Your task to perform on an android device: Go to calendar. Show me events next week Image 0: 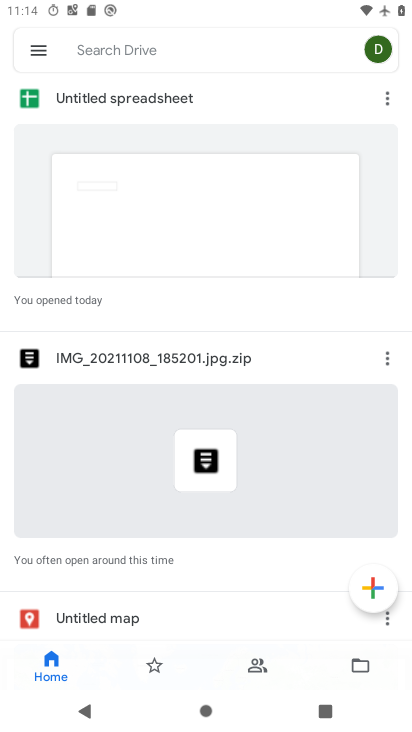
Step 0: press home button
Your task to perform on an android device: Go to calendar. Show me events next week Image 1: 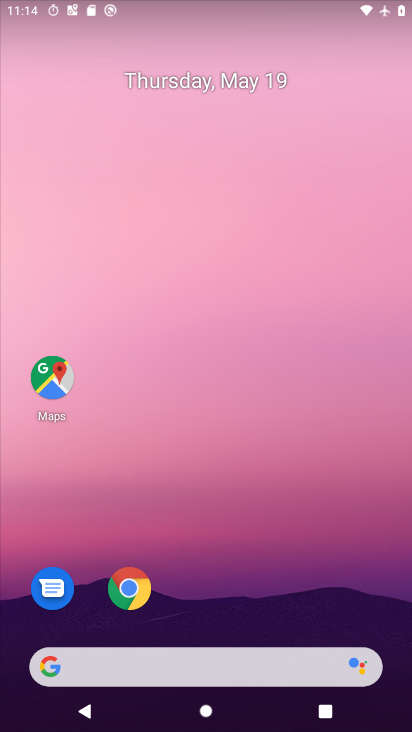
Step 1: drag from (174, 674) to (308, 118)
Your task to perform on an android device: Go to calendar. Show me events next week Image 2: 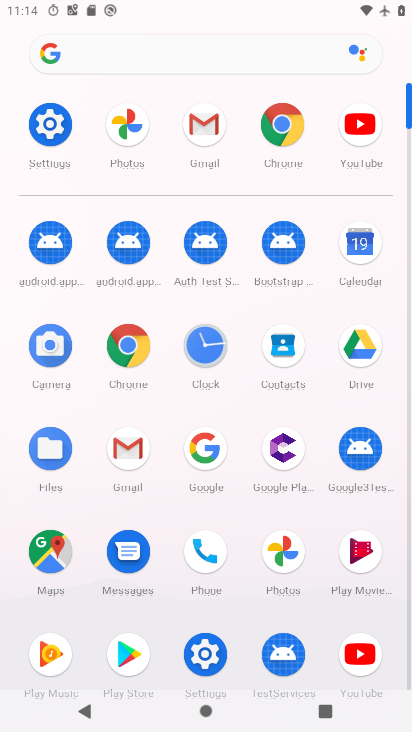
Step 2: click (357, 254)
Your task to perform on an android device: Go to calendar. Show me events next week Image 3: 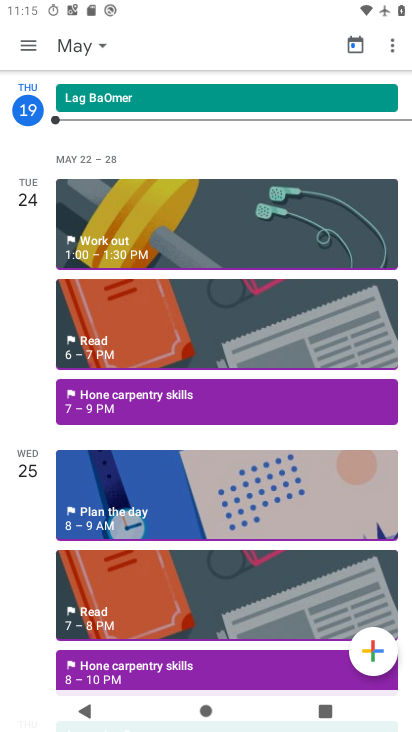
Step 3: click (71, 41)
Your task to perform on an android device: Go to calendar. Show me events next week Image 4: 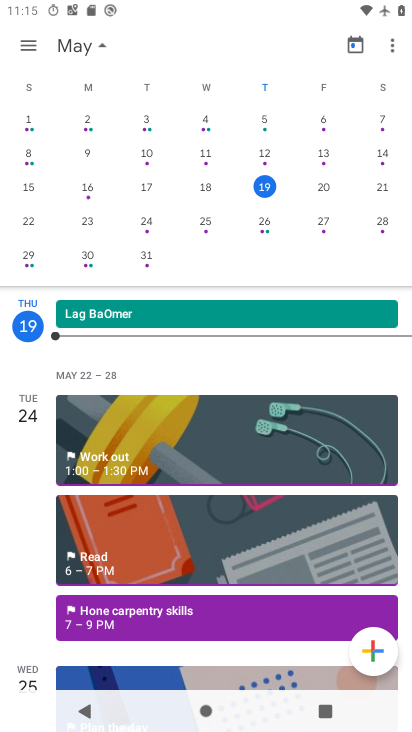
Step 4: click (33, 217)
Your task to perform on an android device: Go to calendar. Show me events next week Image 5: 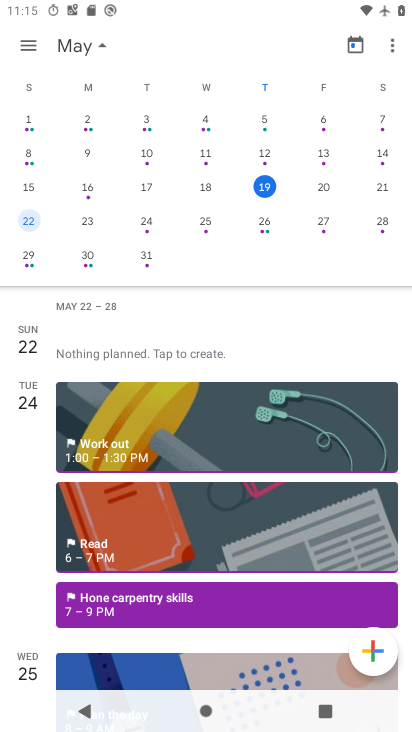
Step 5: click (27, 45)
Your task to perform on an android device: Go to calendar. Show me events next week Image 6: 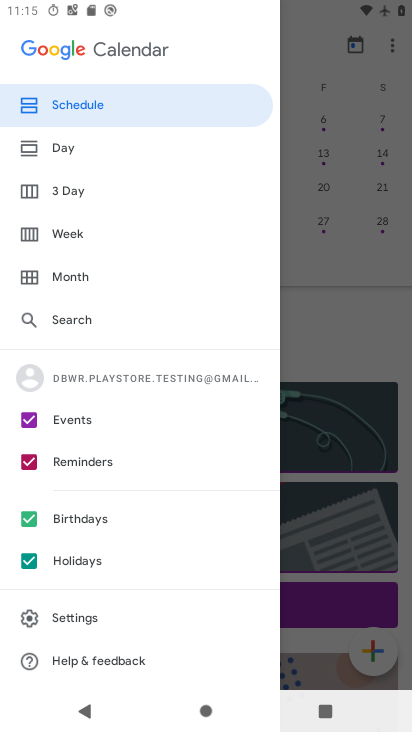
Step 6: click (66, 235)
Your task to perform on an android device: Go to calendar. Show me events next week Image 7: 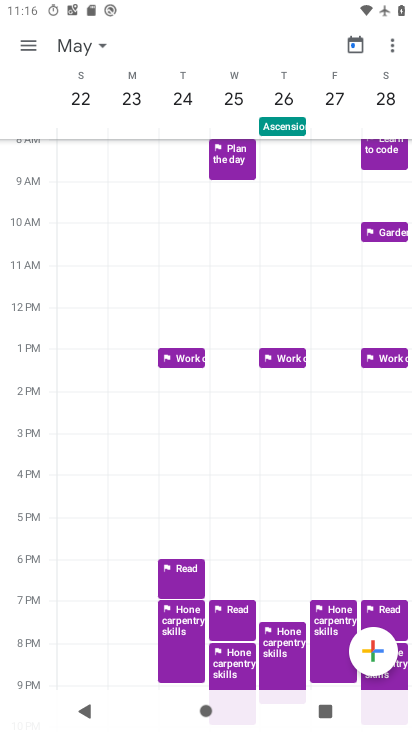
Step 7: task complete